Your task to perform on an android device: Turn off the flashlight Image 0: 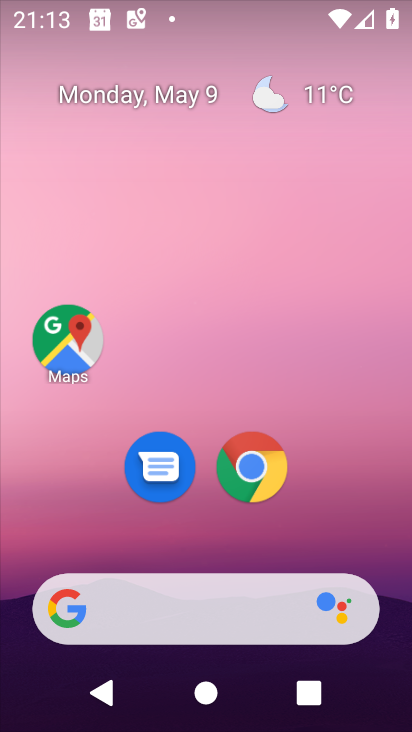
Step 0: drag from (324, 530) to (325, 261)
Your task to perform on an android device: Turn off the flashlight Image 1: 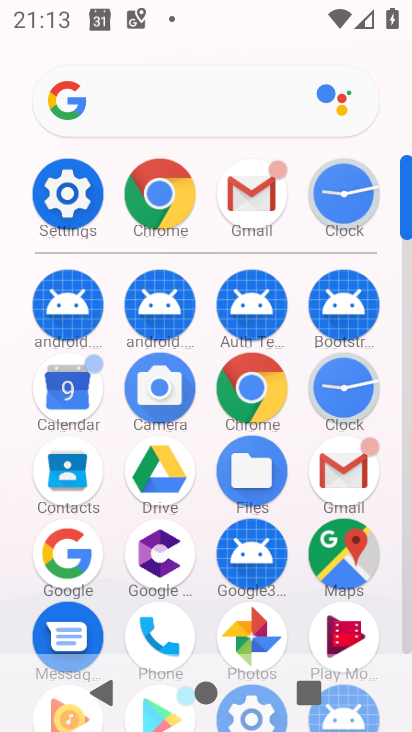
Step 1: click (76, 198)
Your task to perform on an android device: Turn off the flashlight Image 2: 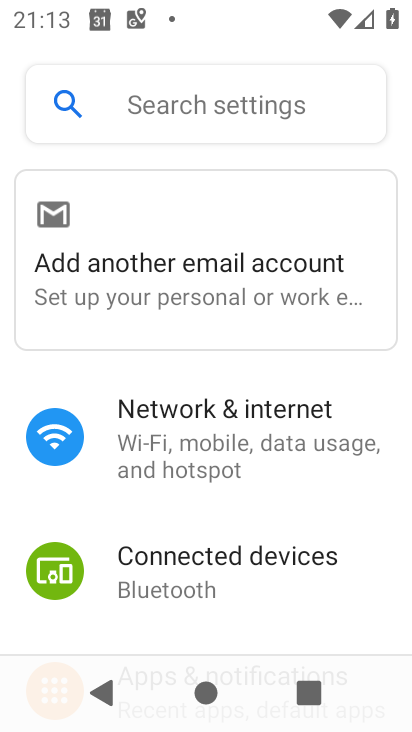
Step 2: task complete